Your task to perform on an android device: check storage Image 0: 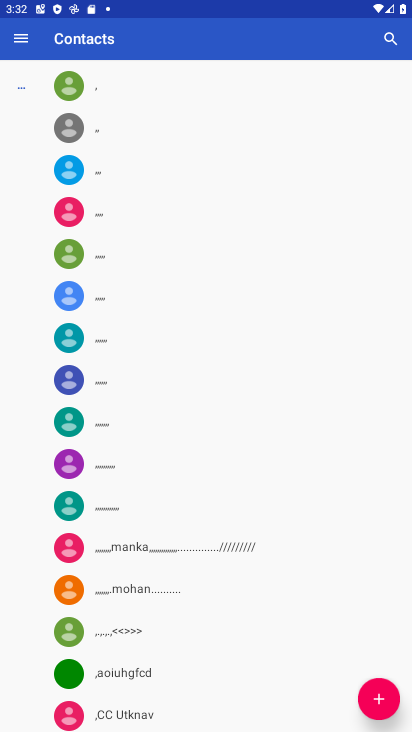
Step 0: press home button
Your task to perform on an android device: check storage Image 1: 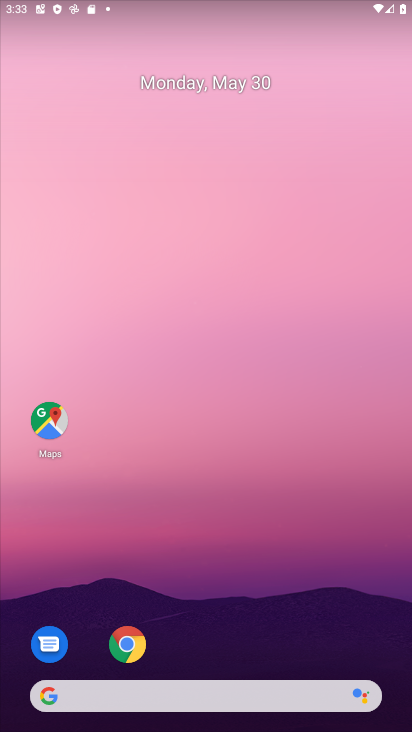
Step 1: drag from (326, 612) to (326, 41)
Your task to perform on an android device: check storage Image 2: 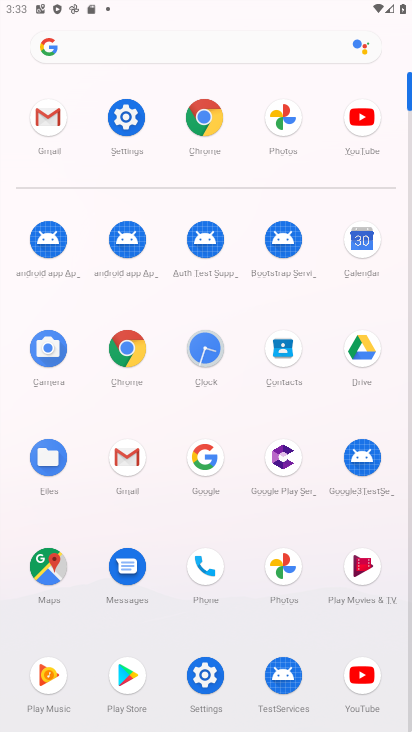
Step 2: drag from (410, 102) to (408, 244)
Your task to perform on an android device: check storage Image 3: 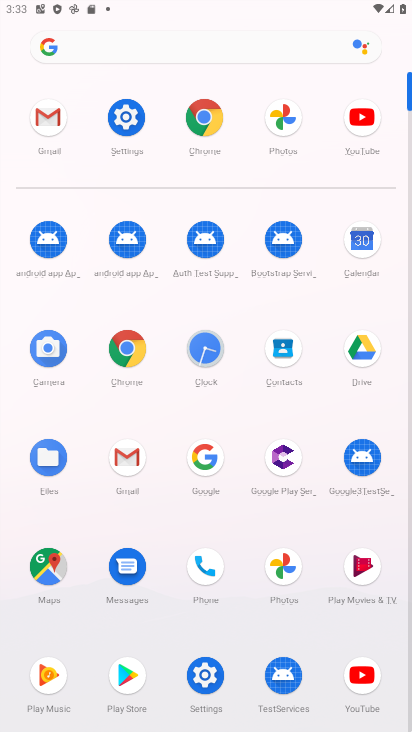
Step 3: click (219, 693)
Your task to perform on an android device: check storage Image 4: 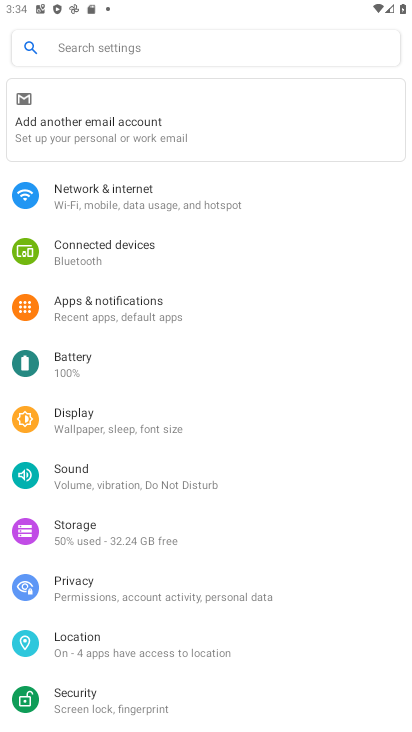
Step 4: click (171, 541)
Your task to perform on an android device: check storage Image 5: 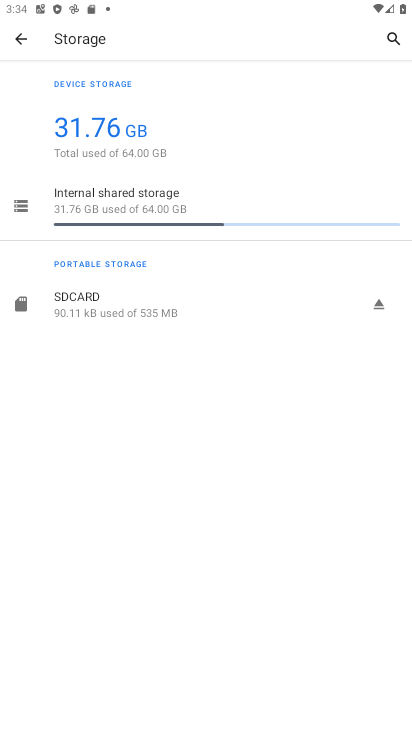
Step 5: task complete